Your task to perform on an android device: Search for seafood restaurants on Google Maps Image 0: 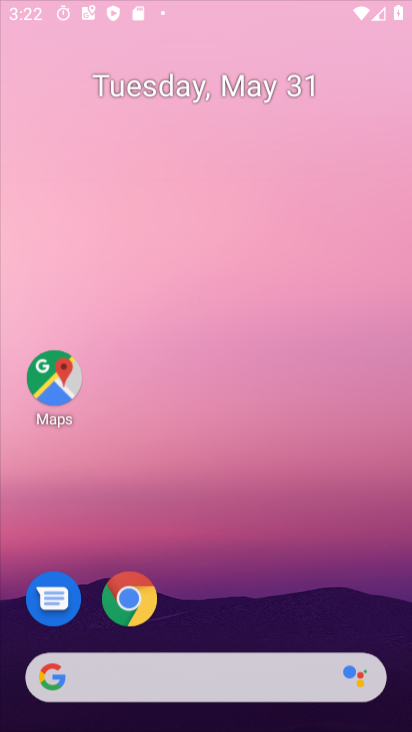
Step 0: press home button
Your task to perform on an android device: Search for seafood restaurants on Google Maps Image 1: 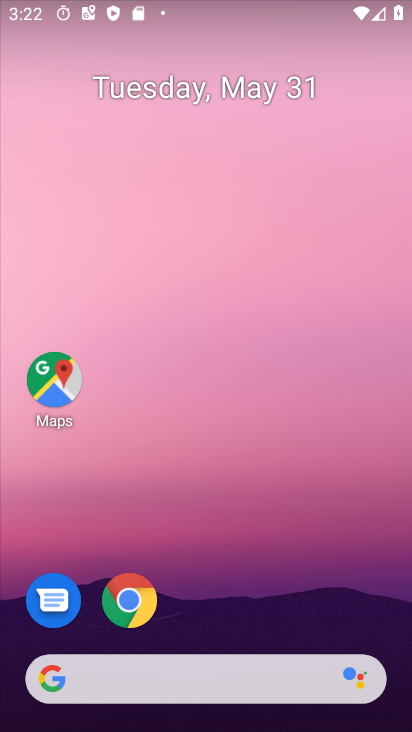
Step 1: click (52, 377)
Your task to perform on an android device: Search for seafood restaurants on Google Maps Image 2: 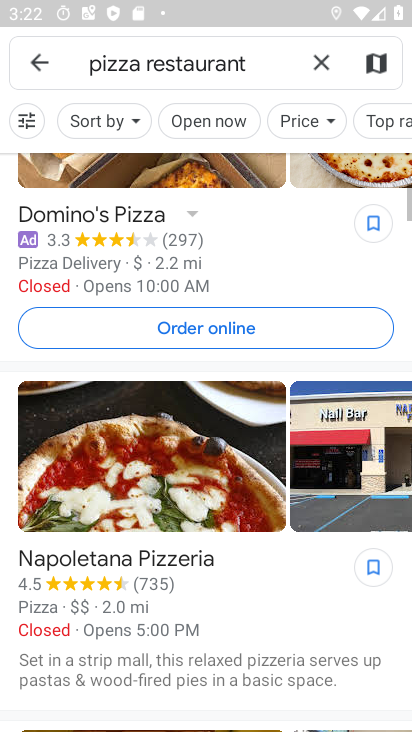
Step 2: click (321, 57)
Your task to perform on an android device: Search for seafood restaurants on Google Maps Image 3: 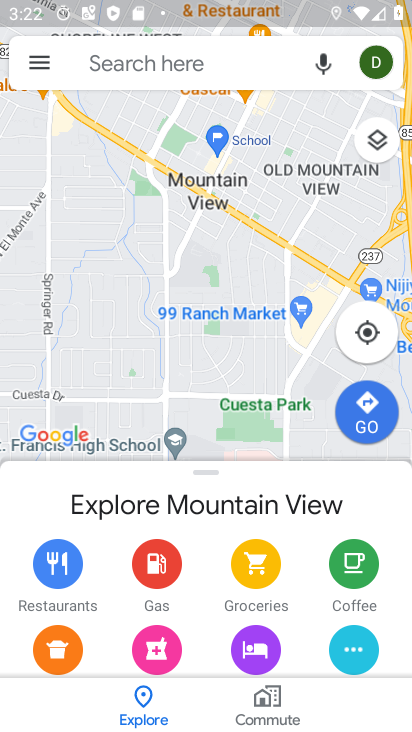
Step 3: type "seafood"
Your task to perform on an android device: Search for seafood restaurants on Google Maps Image 4: 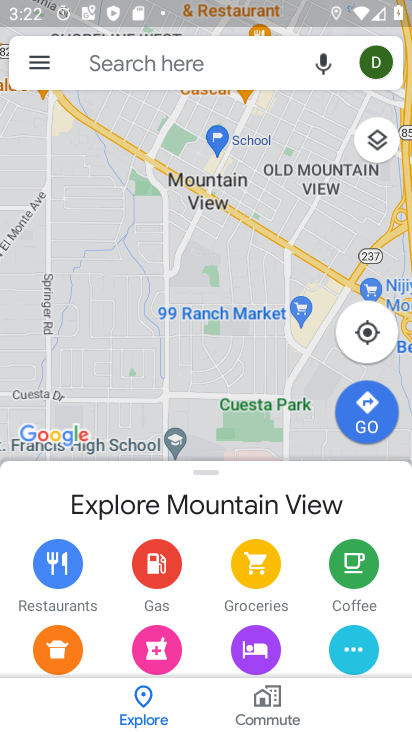
Step 4: type ""
Your task to perform on an android device: Search for seafood restaurants on Google Maps Image 5: 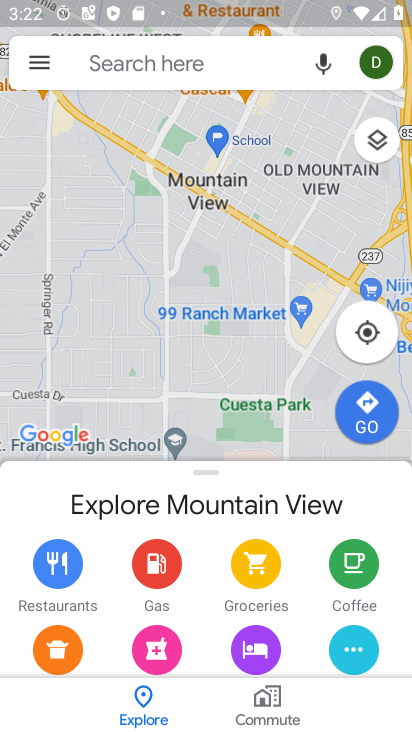
Step 5: click (132, 51)
Your task to perform on an android device: Search for seafood restaurants on Google Maps Image 6: 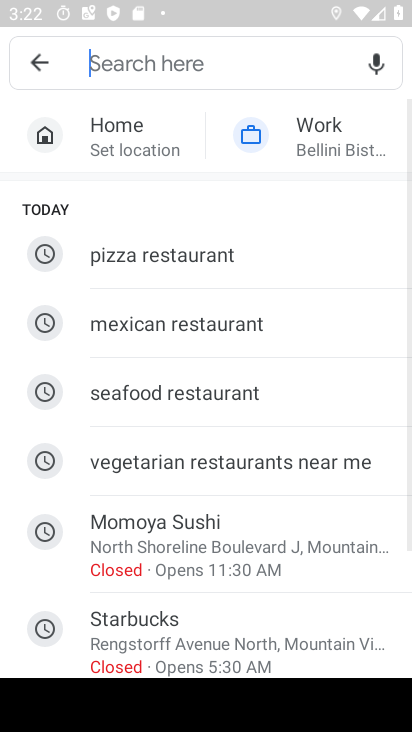
Step 6: click (120, 387)
Your task to perform on an android device: Search for seafood restaurants on Google Maps Image 7: 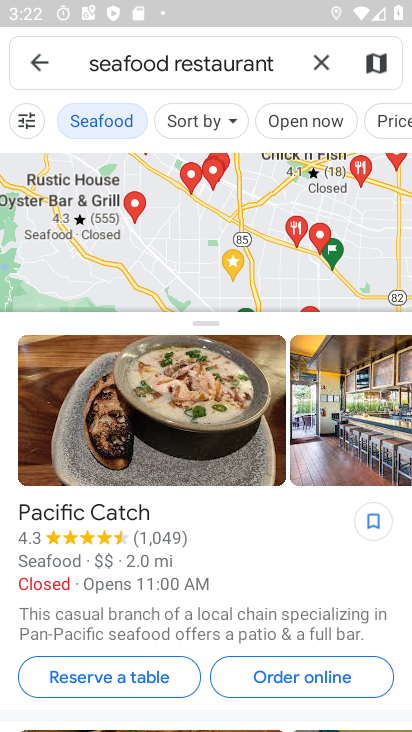
Step 7: task complete